Your task to perform on an android device: install app "eBay: The shopping marketplace" Image 0: 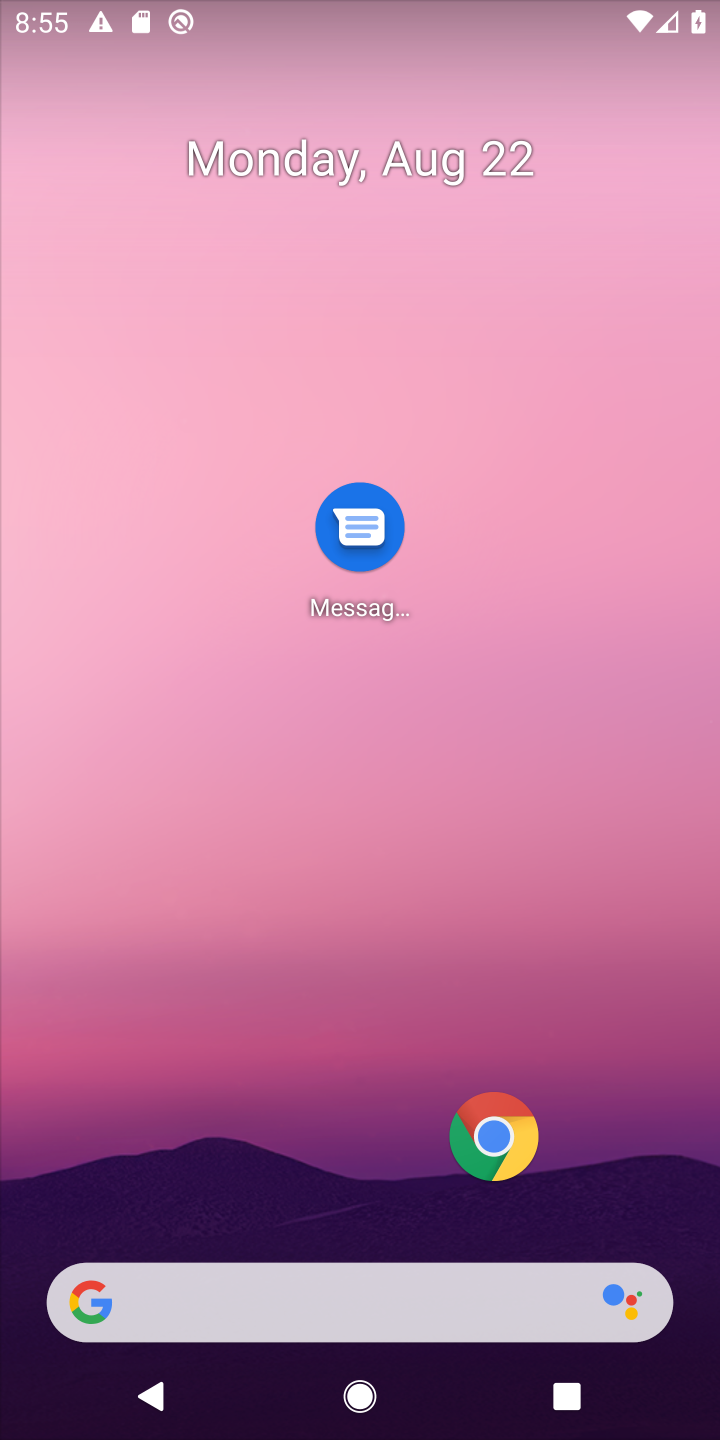
Step 0: drag from (353, 770) to (407, 271)
Your task to perform on an android device: install app "eBay: The shopping marketplace" Image 1: 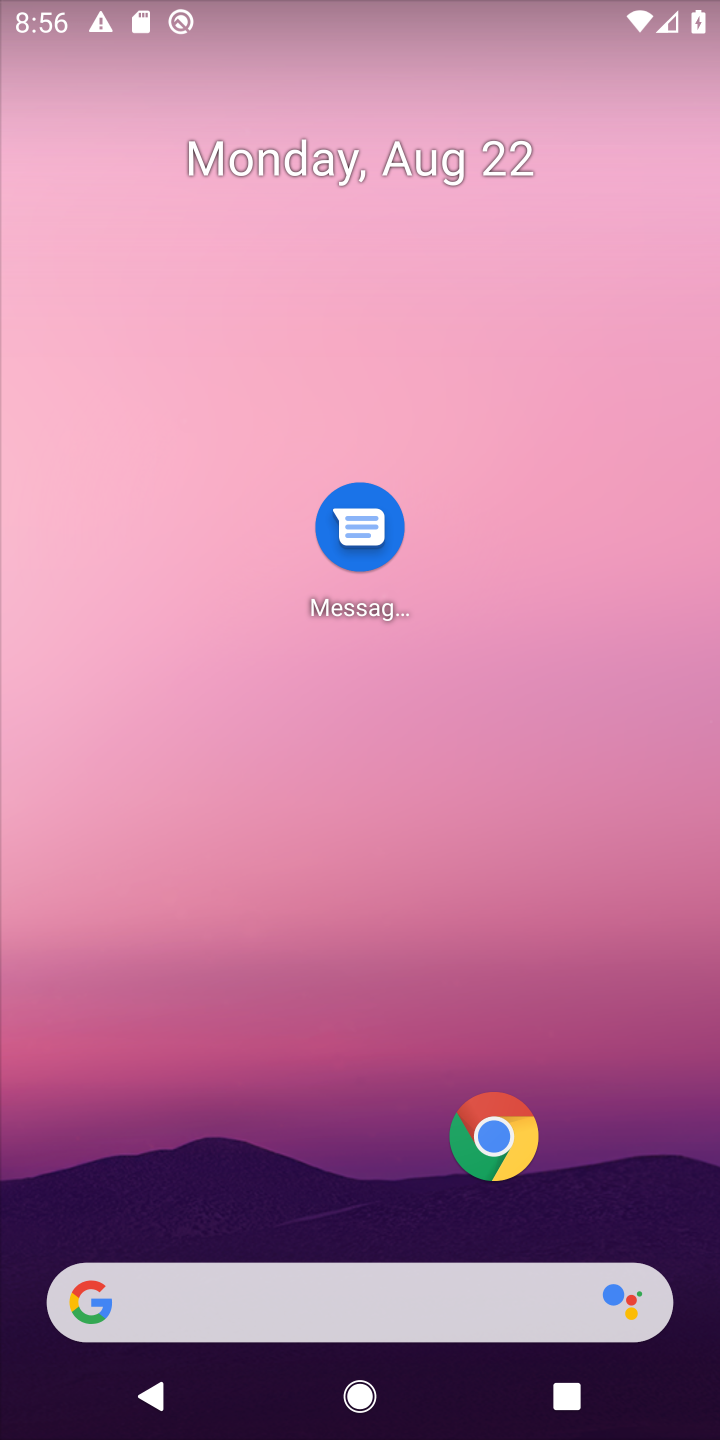
Step 1: drag from (271, 1185) to (231, 493)
Your task to perform on an android device: install app "eBay: The shopping marketplace" Image 2: 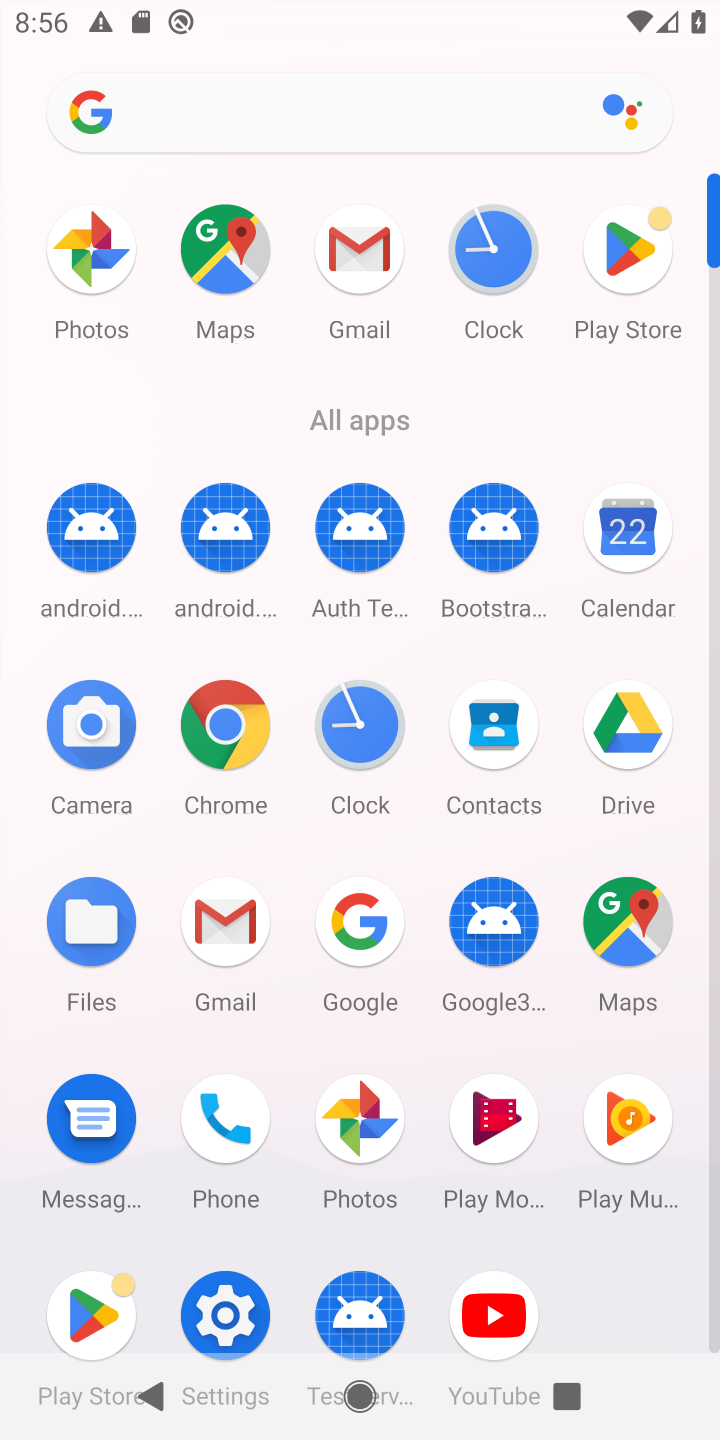
Step 2: click (632, 237)
Your task to perform on an android device: install app "eBay: The shopping marketplace" Image 3: 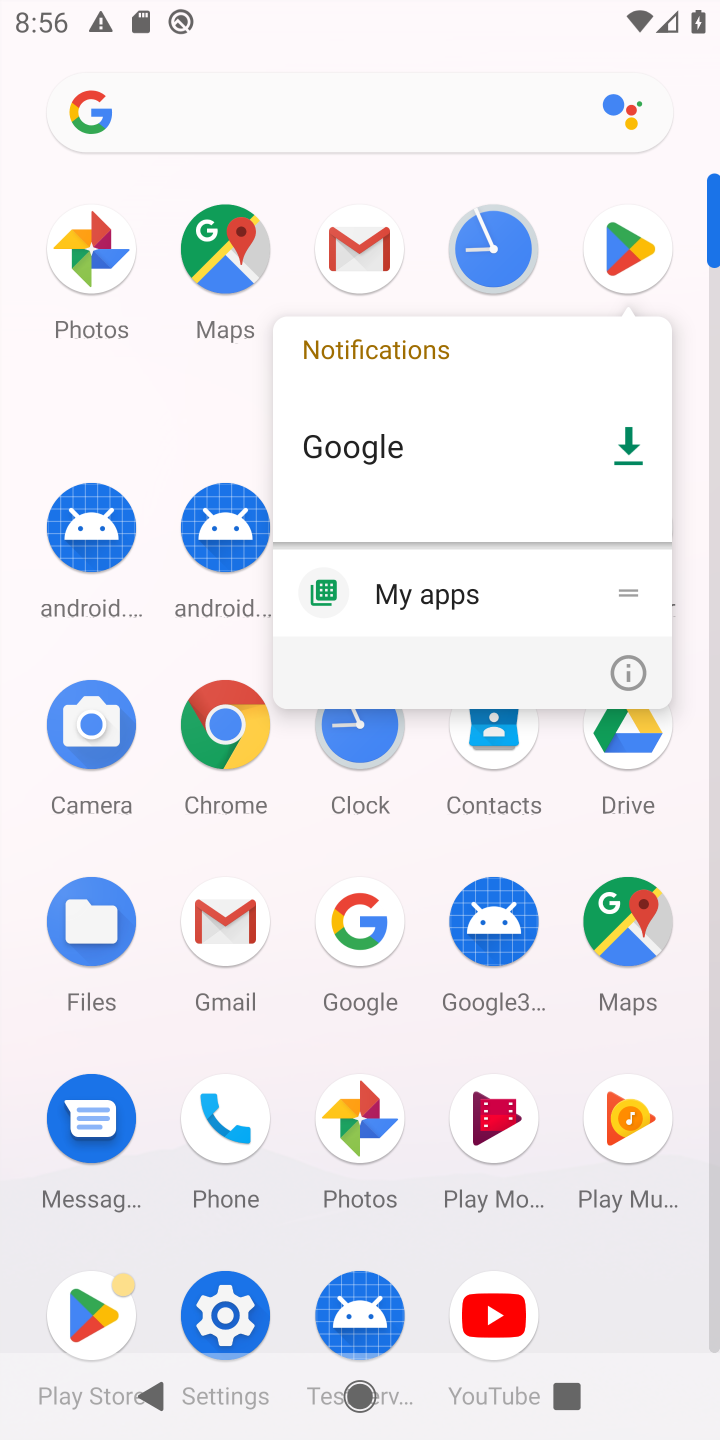
Step 3: click (626, 237)
Your task to perform on an android device: install app "eBay: The shopping marketplace" Image 4: 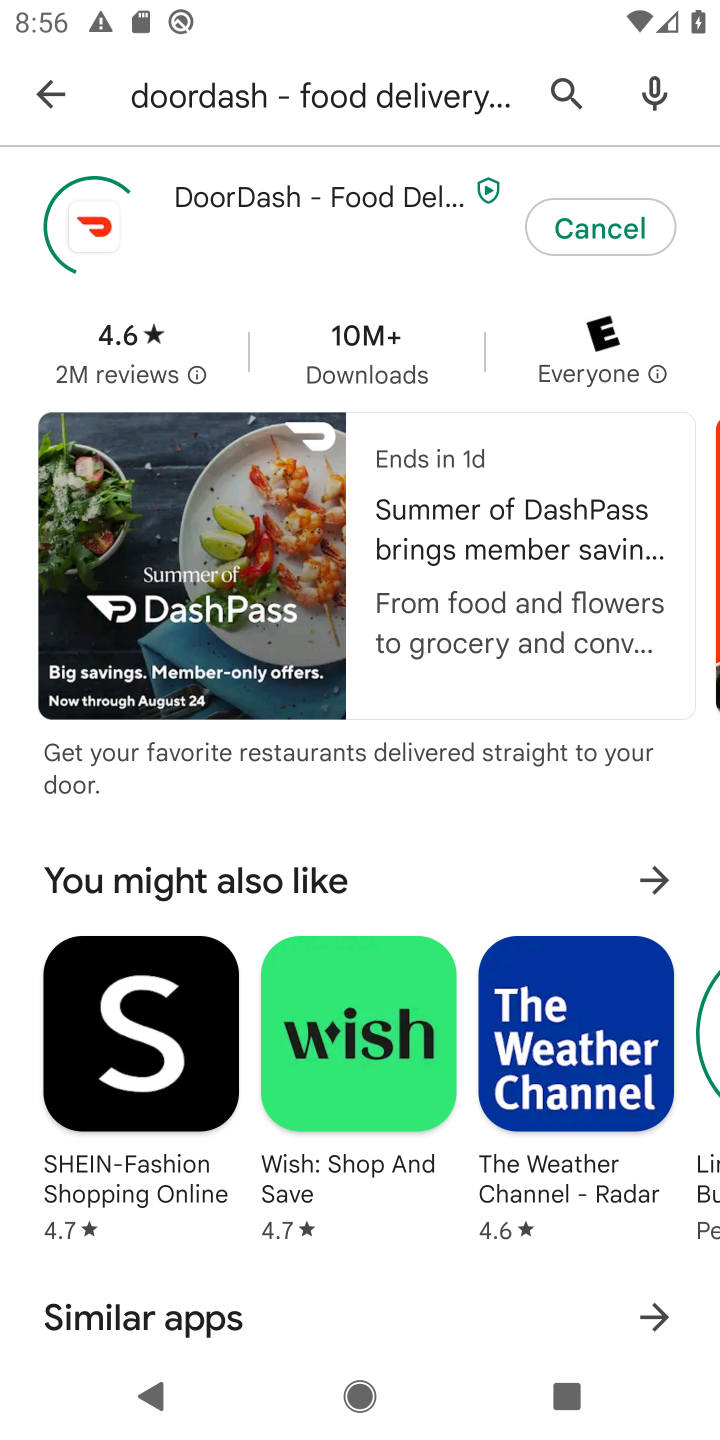
Step 4: click (70, 97)
Your task to perform on an android device: install app "eBay: The shopping marketplace" Image 5: 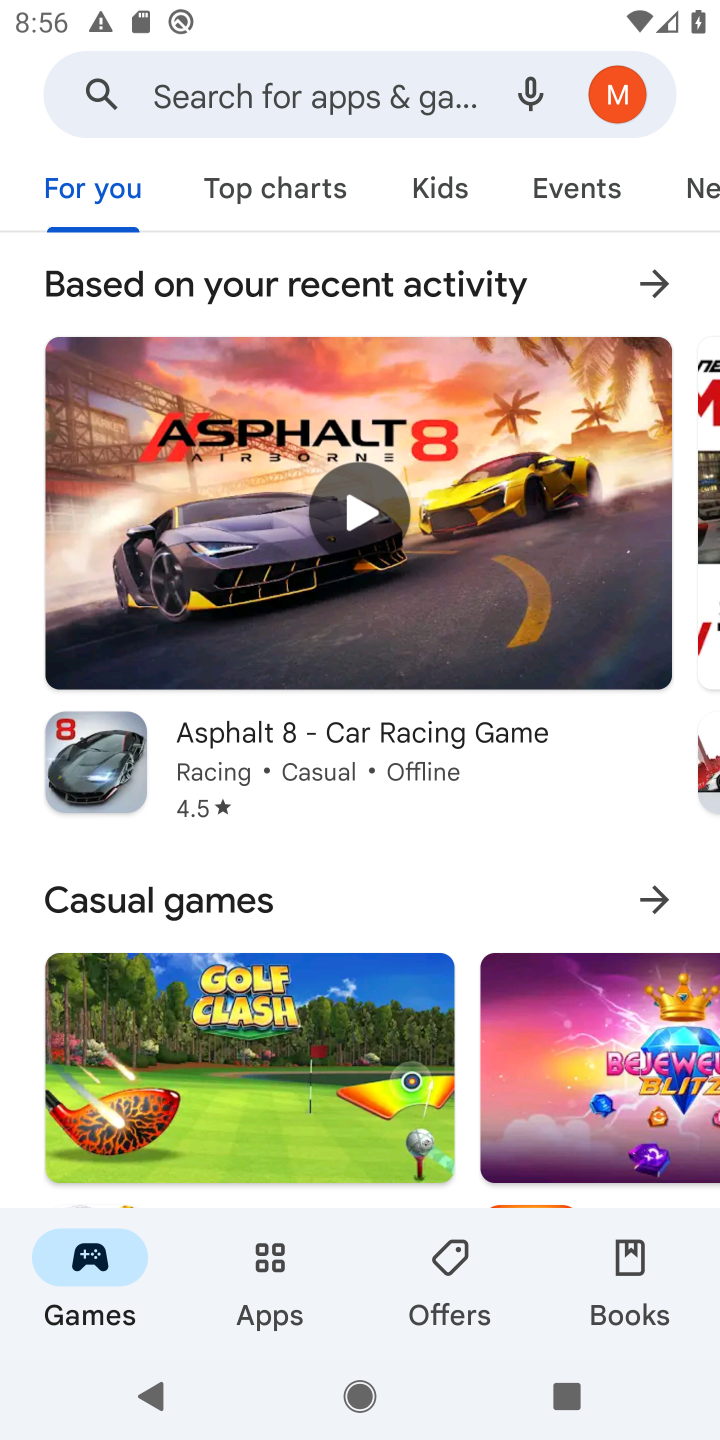
Step 5: click (238, 85)
Your task to perform on an android device: install app "eBay: The shopping marketplace" Image 6: 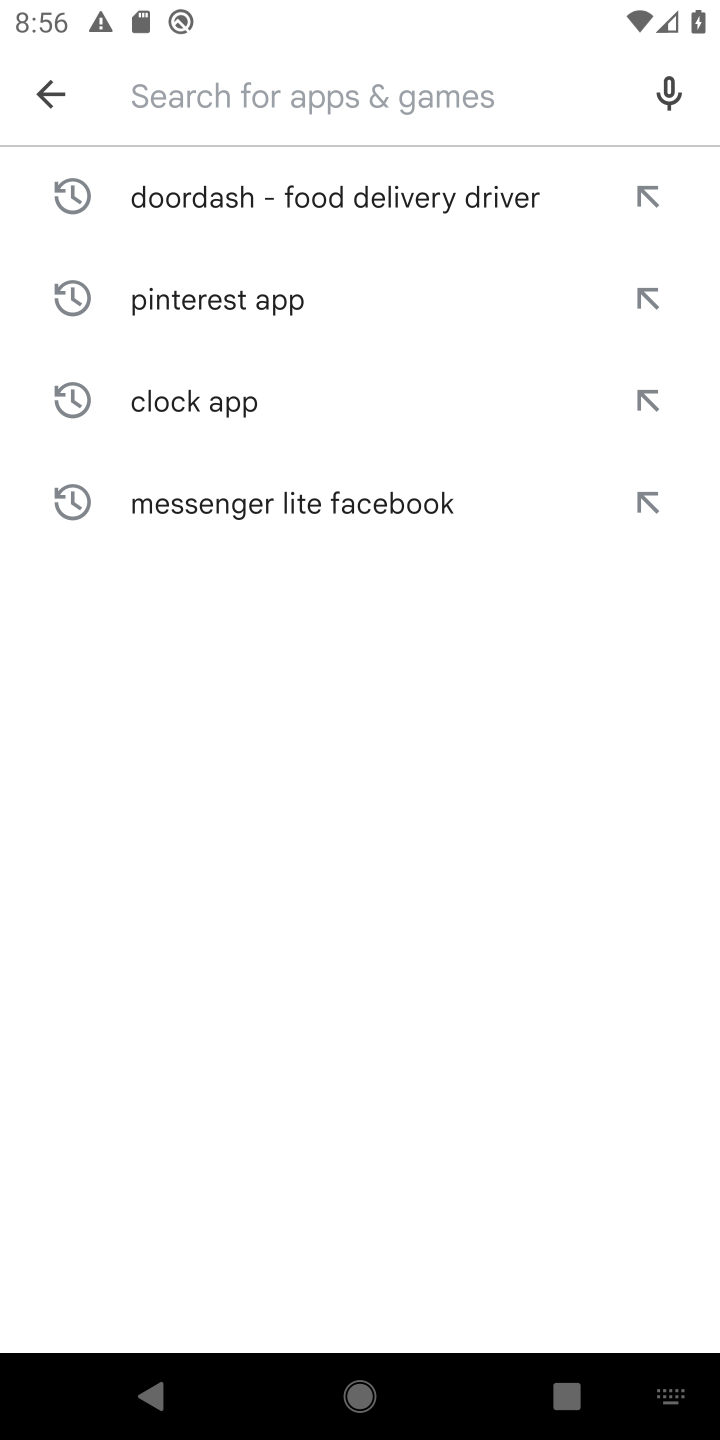
Step 6: type "eBay "
Your task to perform on an android device: install app "eBay: The shopping marketplace" Image 7: 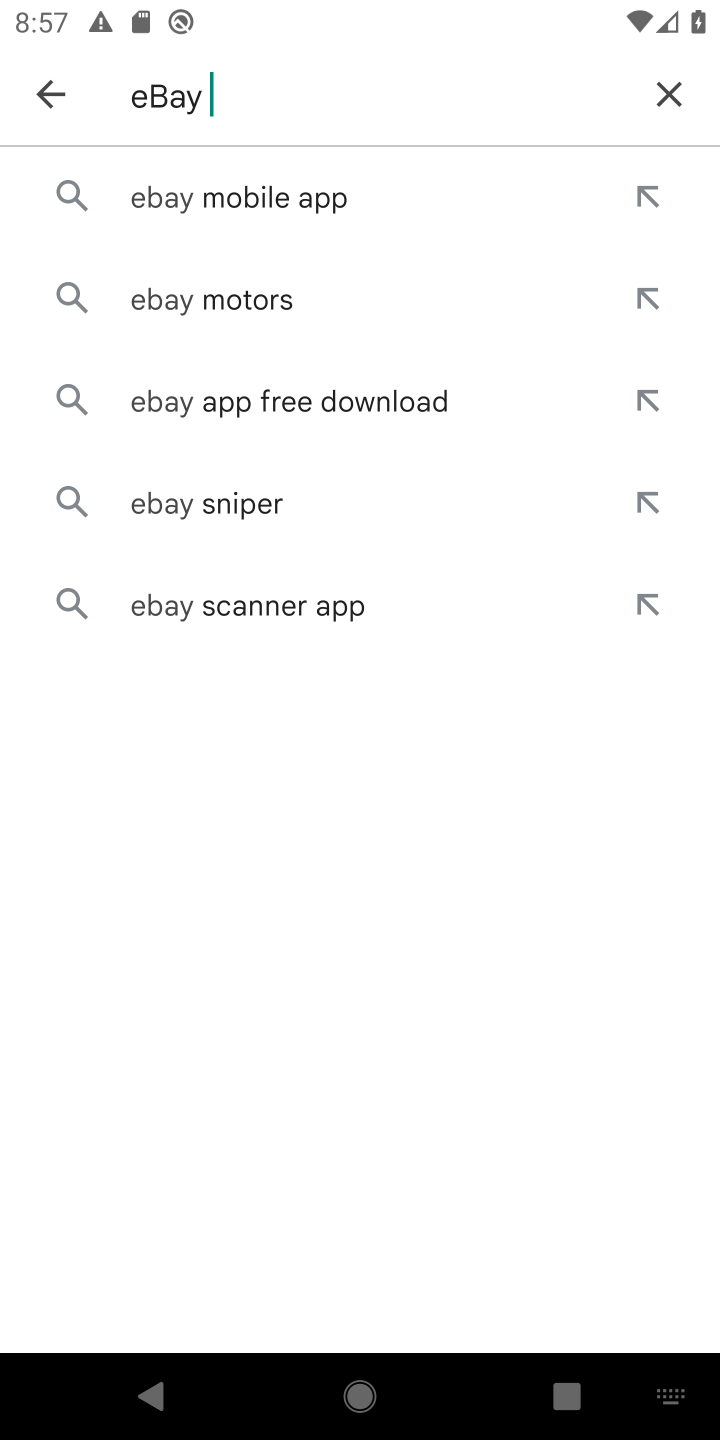
Step 7: click (228, 199)
Your task to perform on an android device: install app "eBay: The shopping marketplace" Image 8: 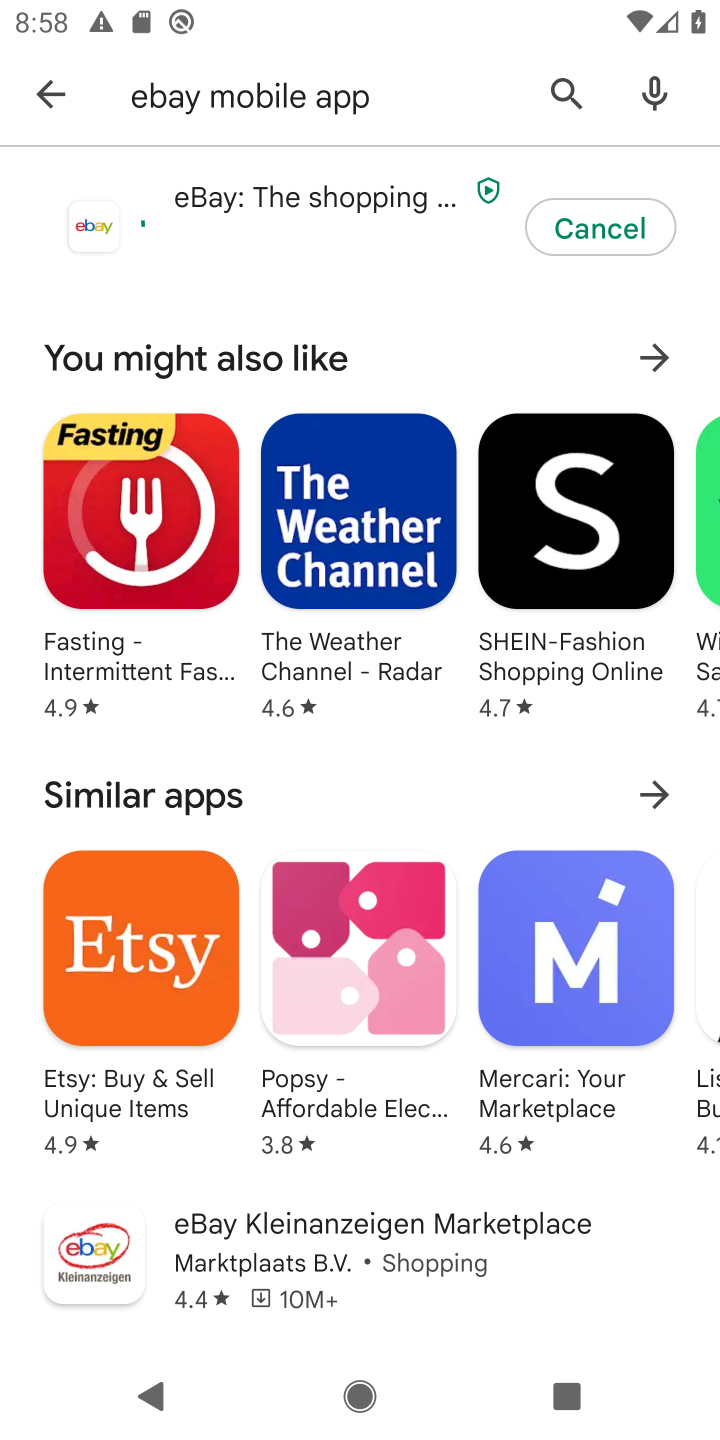
Step 8: task complete